Your task to perform on an android device: change the upload size in google photos Image 0: 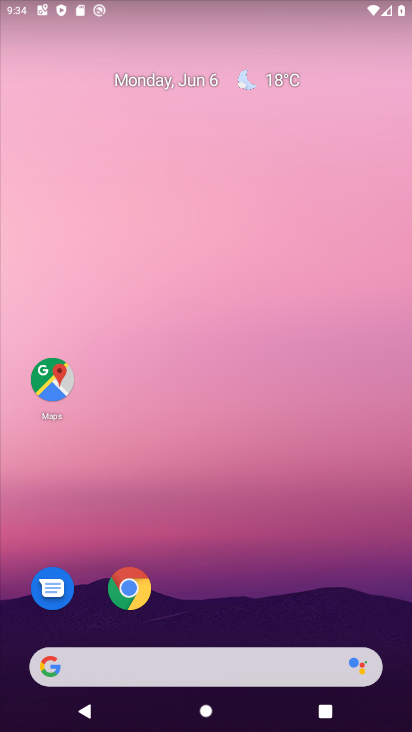
Step 0: drag from (220, 612) to (194, 53)
Your task to perform on an android device: change the upload size in google photos Image 1: 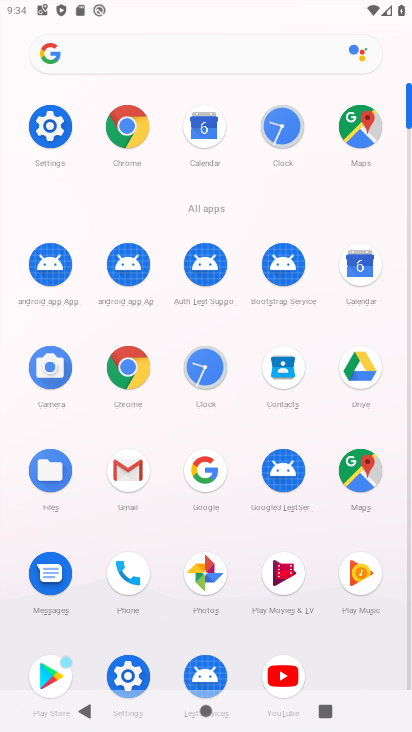
Step 1: click (206, 578)
Your task to perform on an android device: change the upload size in google photos Image 2: 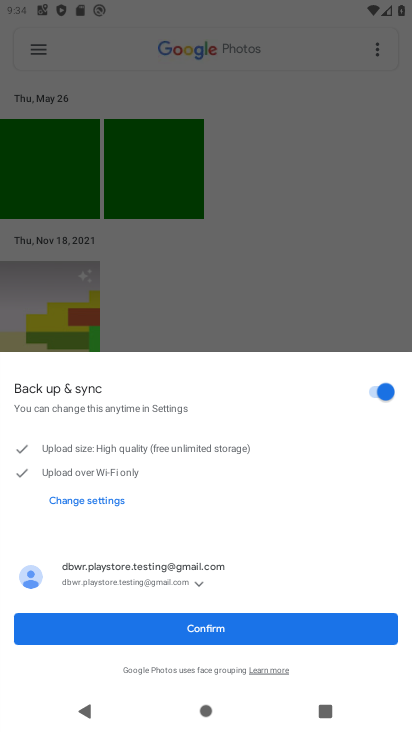
Step 2: click (195, 622)
Your task to perform on an android device: change the upload size in google photos Image 3: 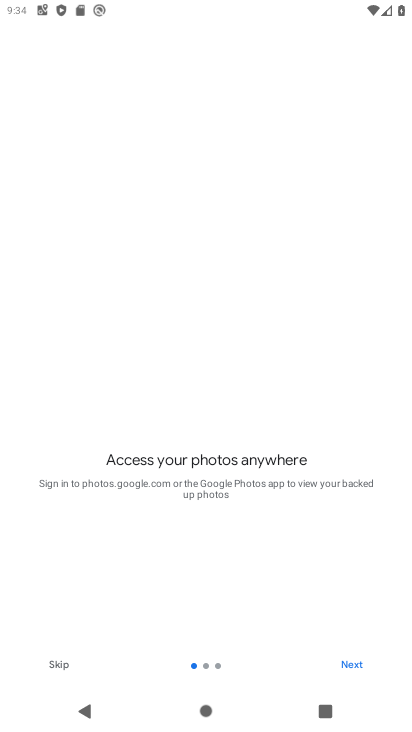
Step 3: click (339, 657)
Your task to perform on an android device: change the upload size in google photos Image 4: 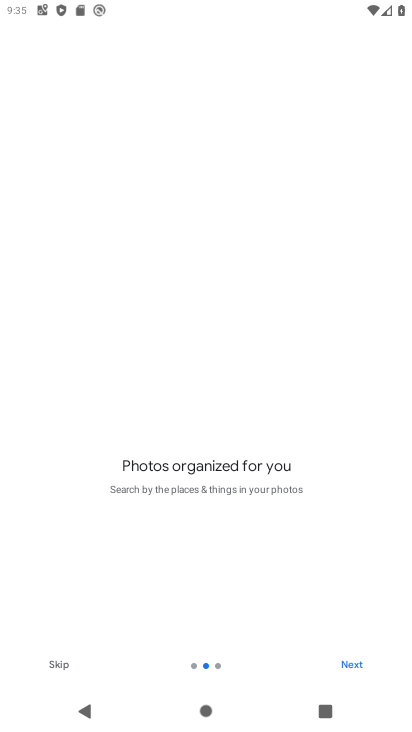
Step 4: click (328, 666)
Your task to perform on an android device: change the upload size in google photos Image 5: 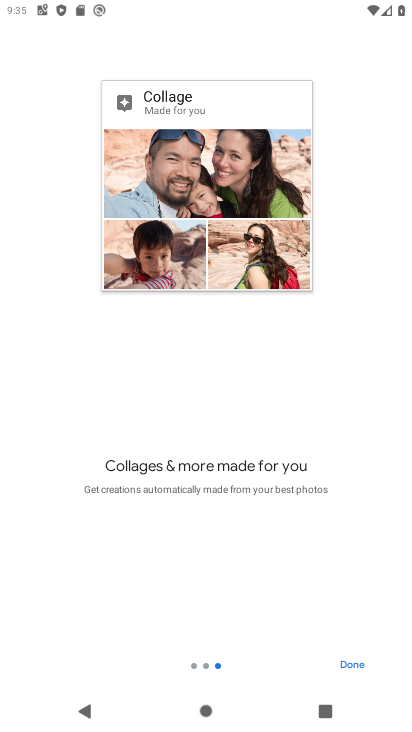
Step 5: click (346, 667)
Your task to perform on an android device: change the upload size in google photos Image 6: 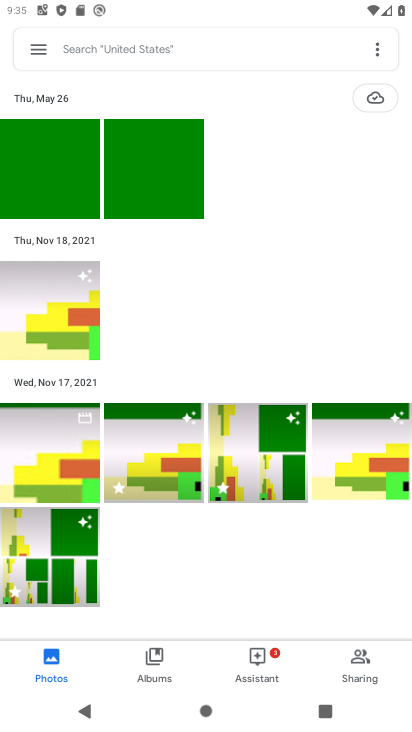
Step 6: click (25, 47)
Your task to perform on an android device: change the upload size in google photos Image 7: 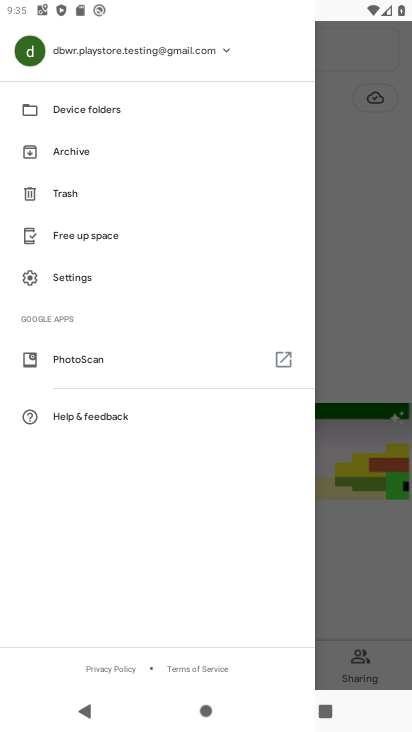
Step 7: click (72, 279)
Your task to perform on an android device: change the upload size in google photos Image 8: 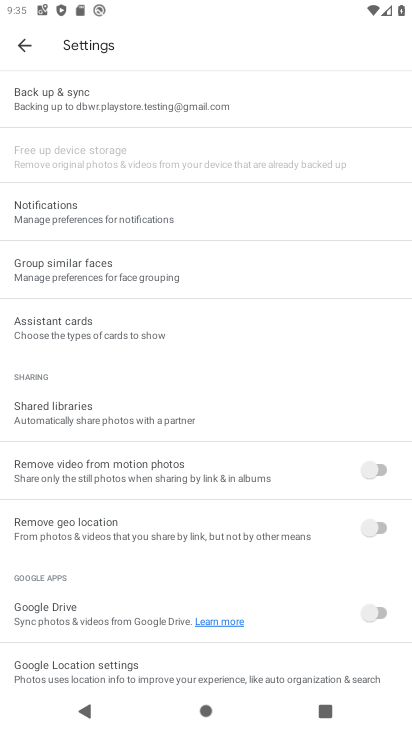
Step 8: click (100, 105)
Your task to perform on an android device: change the upload size in google photos Image 9: 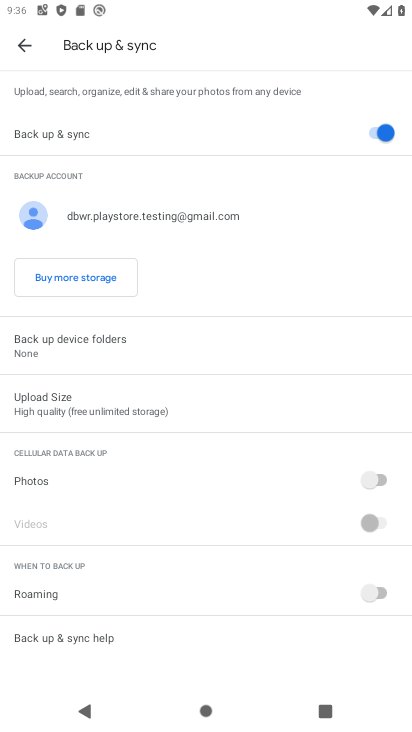
Step 9: click (59, 403)
Your task to perform on an android device: change the upload size in google photos Image 10: 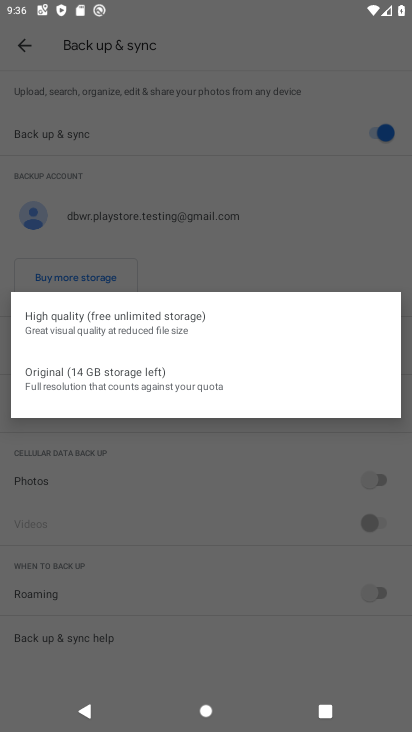
Step 10: click (86, 401)
Your task to perform on an android device: change the upload size in google photos Image 11: 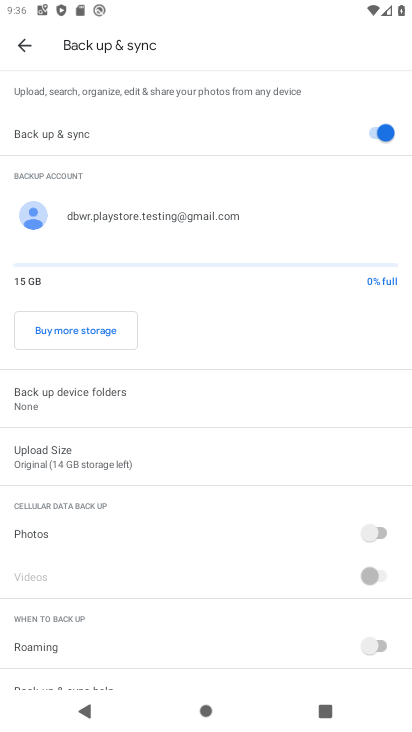
Step 11: task complete